Your task to perform on an android device: delete a single message in the gmail app Image 0: 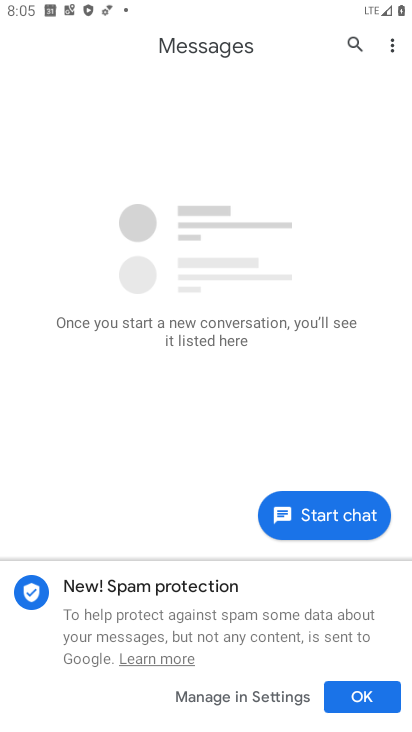
Step 0: press home button
Your task to perform on an android device: delete a single message in the gmail app Image 1: 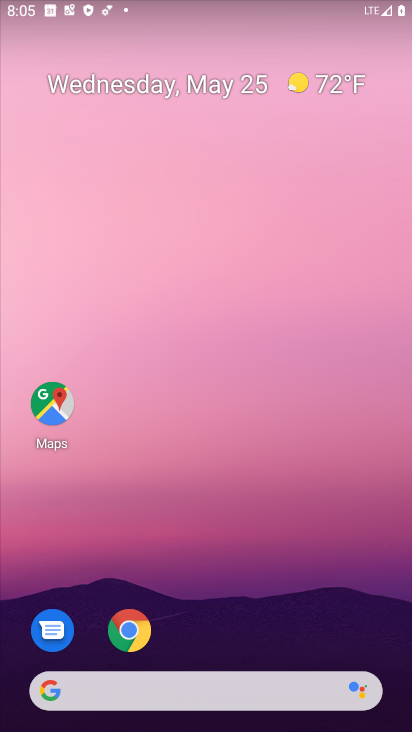
Step 1: drag from (219, 639) to (221, 150)
Your task to perform on an android device: delete a single message in the gmail app Image 2: 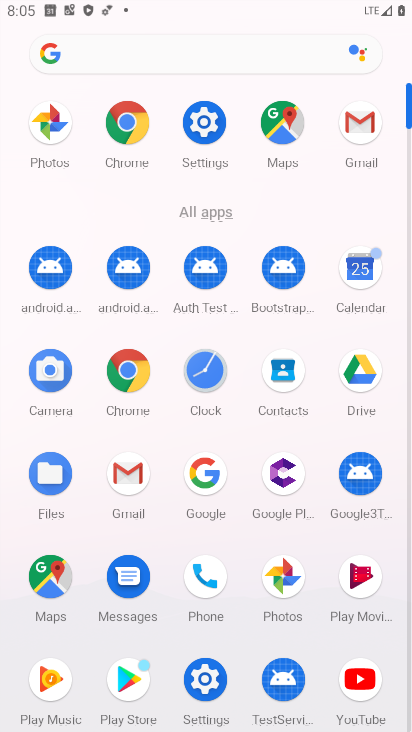
Step 2: click (355, 143)
Your task to perform on an android device: delete a single message in the gmail app Image 3: 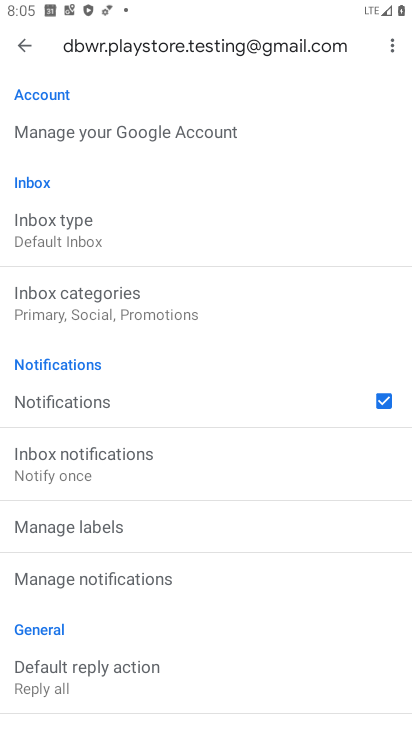
Step 3: click (18, 33)
Your task to perform on an android device: delete a single message in the gmail app Image 4: 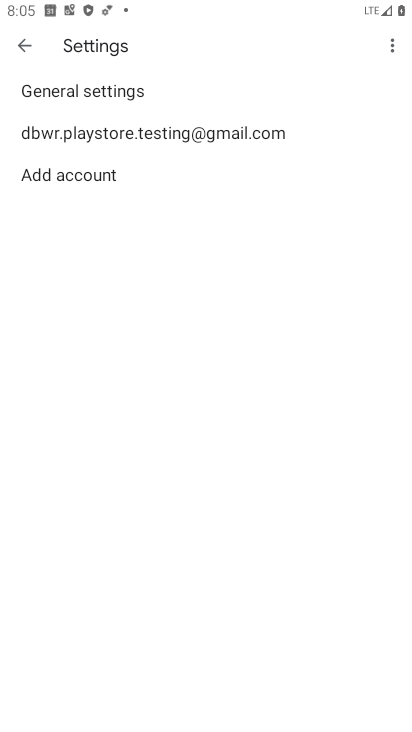
Step 4: click (30, 51)
Your task to perform on an android device: delete a single message in the gmail app Image 5: 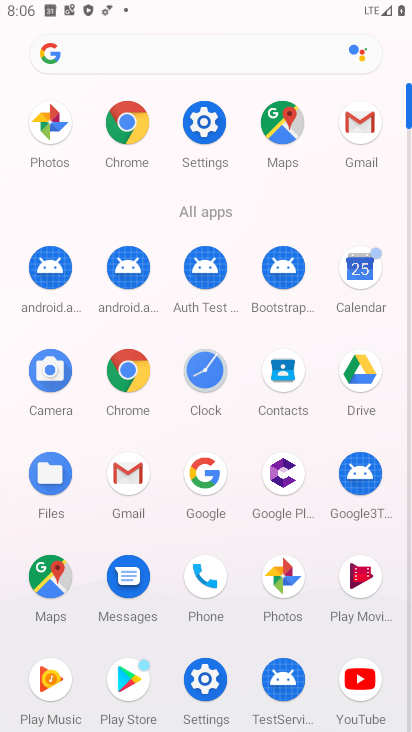
Step 5: click (350, 108)
Your task to perform on an android device: delete a single message in the gmail app Image 6: 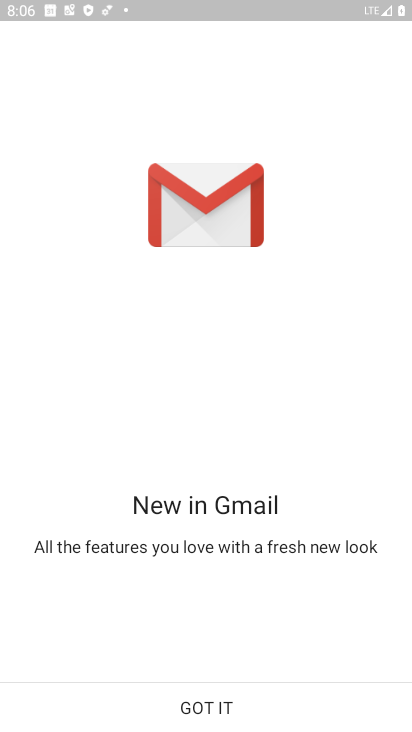
Step 6: click (213, 693)
Your task to perform on an android device: delete a single message in the gmail app Image 7: 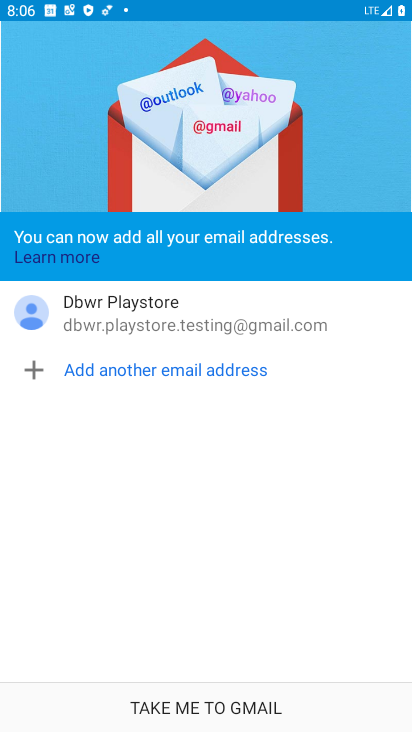
Step 7: click (213, 693)
Your task to perform on an android device: delete a single message in the gmail app Image 8: 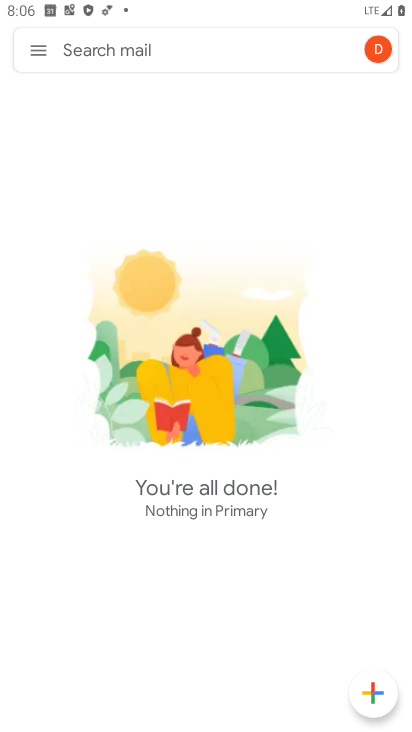
Step 8: click (40, 49)
Your task to perform on an android device: delete a single message in the gmail app Image 9: 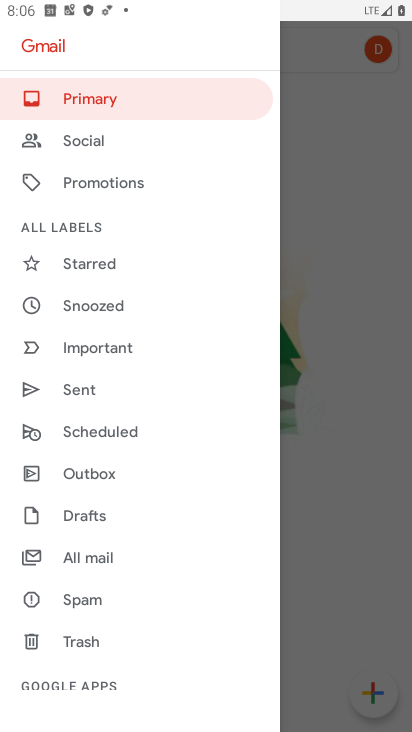
Step 9: click (119, 549)
Your task to perform on an android device: delete a single message in the gmail app Image 10: 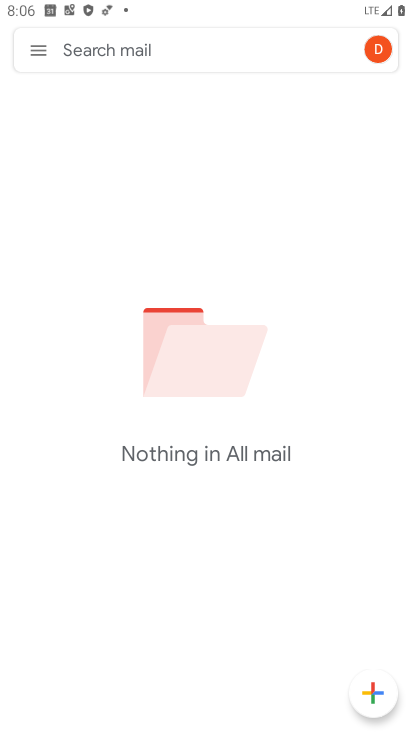
Step 10: task complete